Your task to perform on an android device: Open Youtube and go to "Your channel" Image 0: 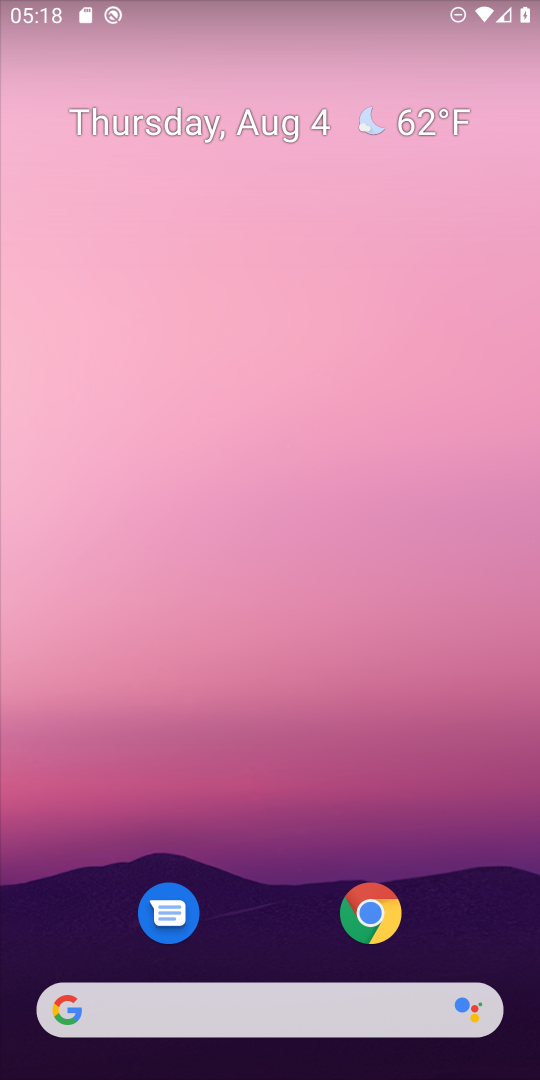
Step 0: drag from (160, 1048) to (194, 425)
Your task to perform on an android device: Open Youtube and go to "Your channel" Image 1: 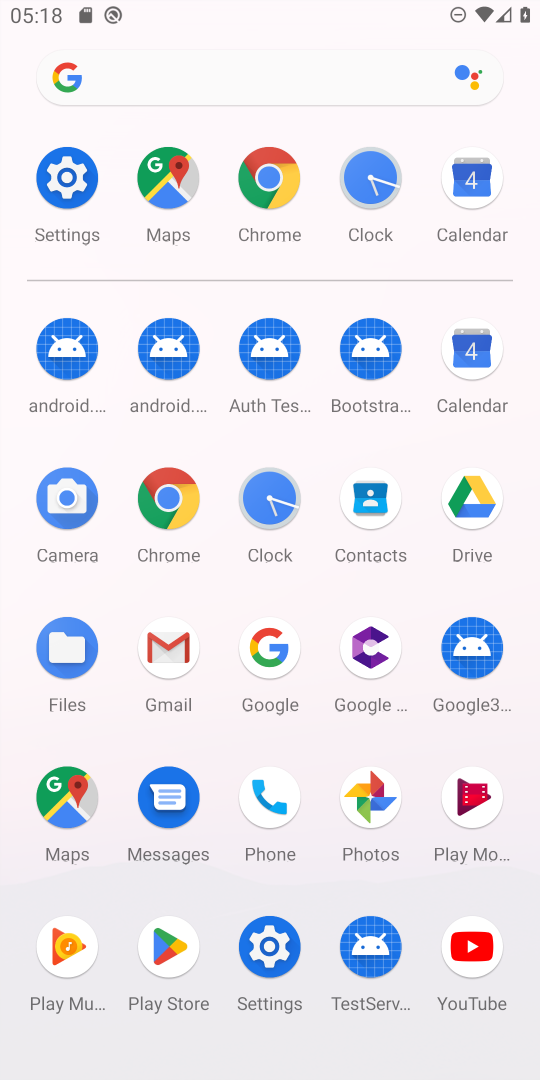
Step 1: click (487, 955)
Your task to perform on an android device: Open Youtube and go to "Your channel" Image 2: 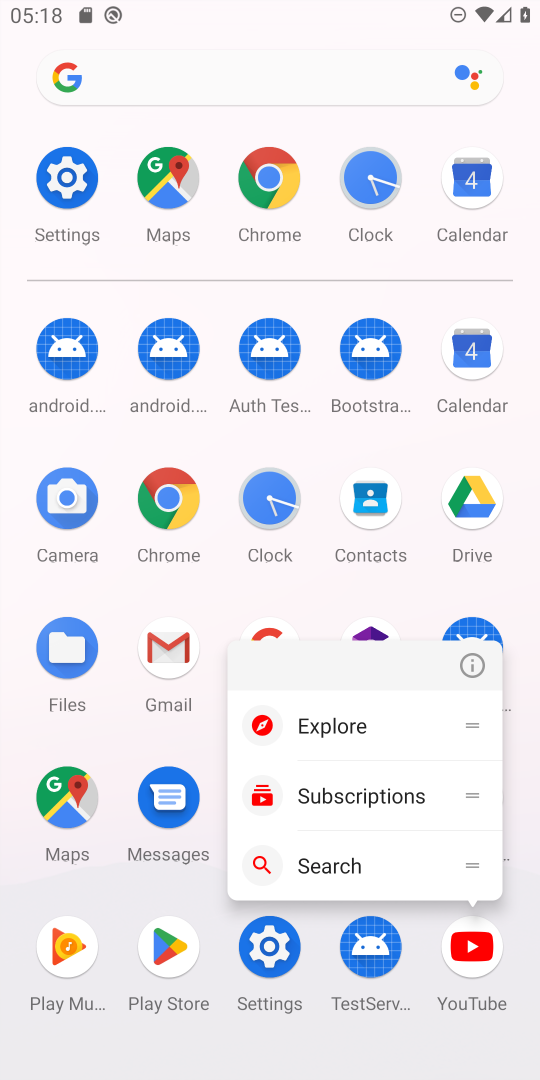
Step 2: click (487, 955)
Your task to perform on an android device: Open Youtube and go to "Your channel" Image 3: 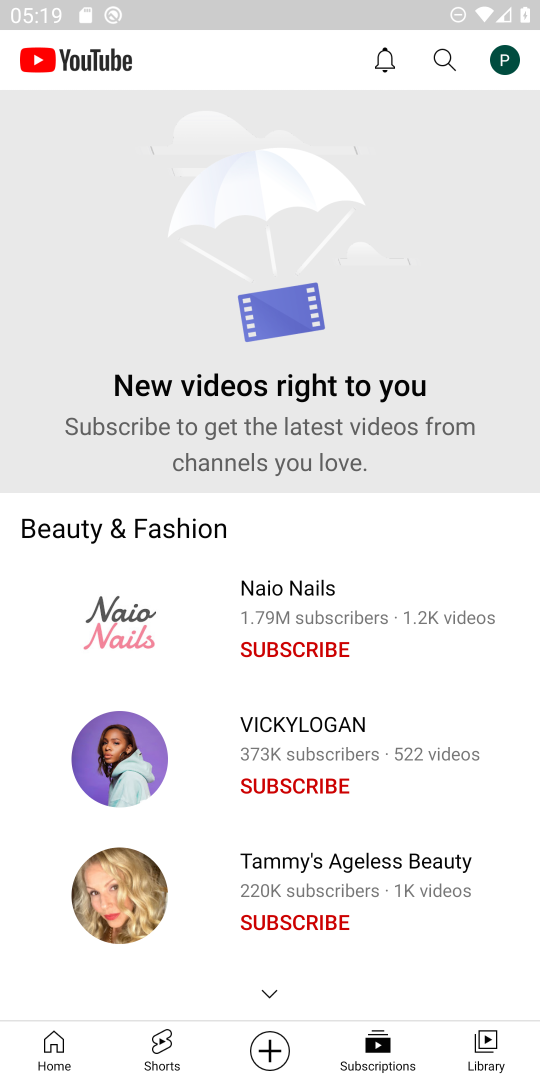
Step 3: click (502, 51)
Your task to perform on an android device: Open Youtube and go to "Your channel" Image 4: 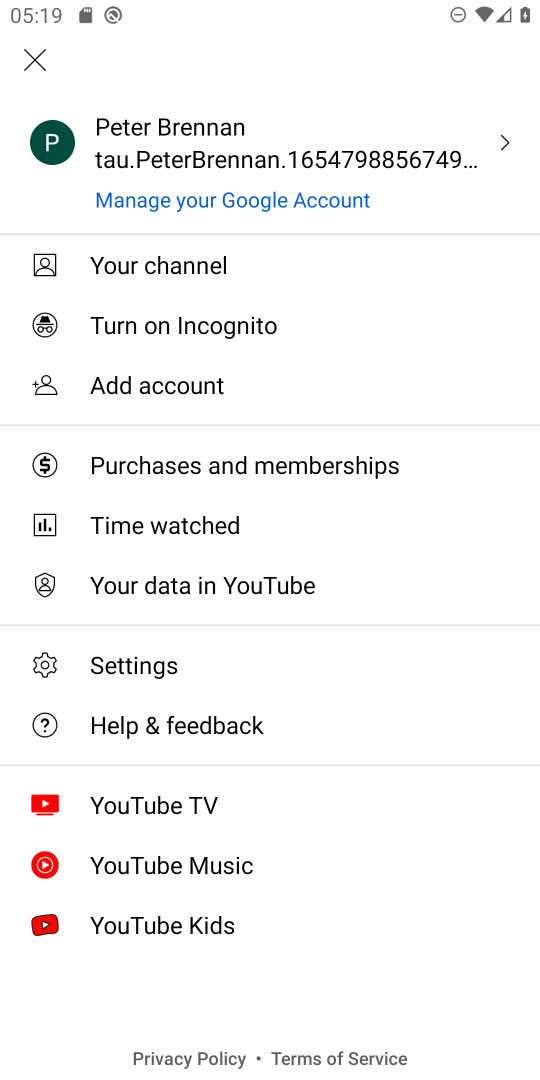
Step 4: click (177, 255)
Your task to perform on an android device: Open Youtube and go to "Your channel" Image 5: 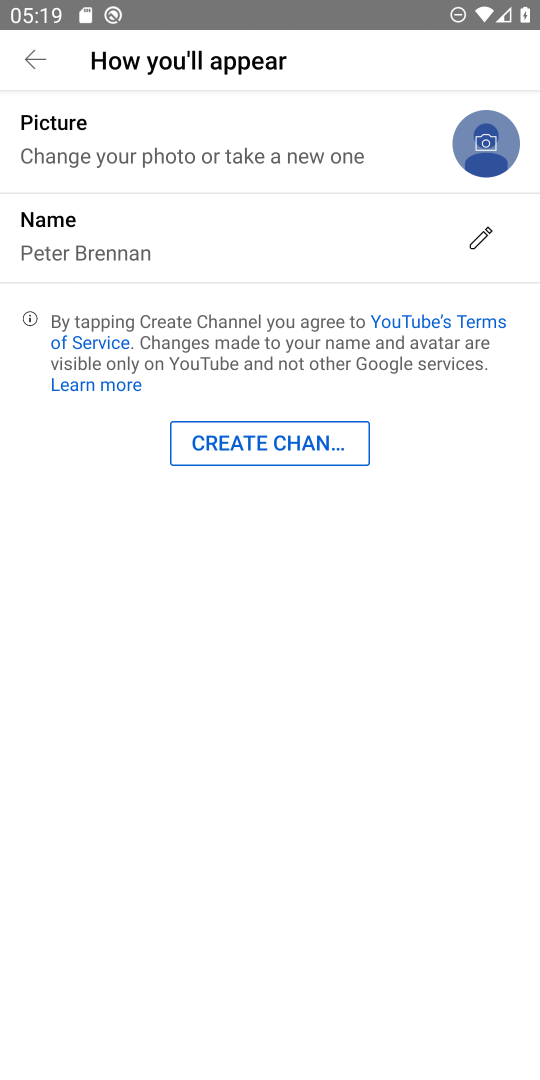
Step 5: task complete